Your task to perform on an android device: open sync settings in chrome Image 0: 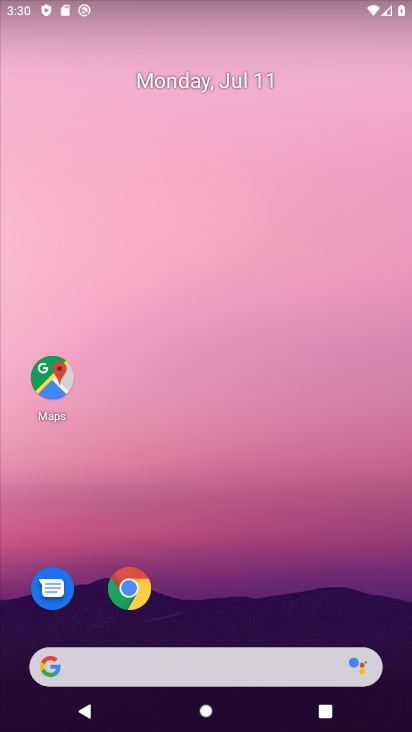
Step 0: drag from (341, 605) to (346, 75)
Your task to perform on an android device: open sync settings in chrome Image 1: 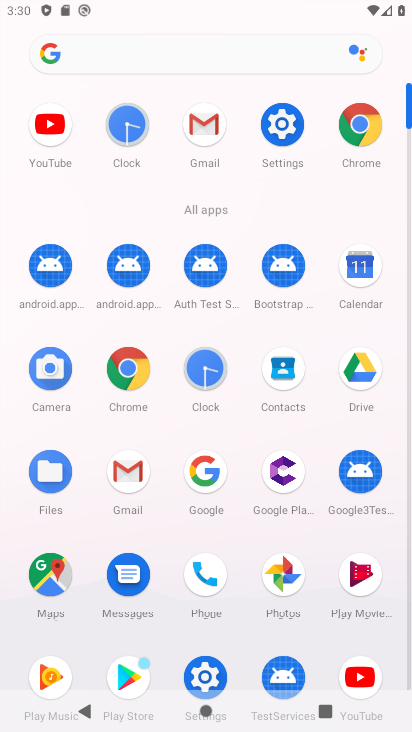
Step 1: click (140, 370)
Your task to perform on an android device: open sync settings in chrome Image 2: 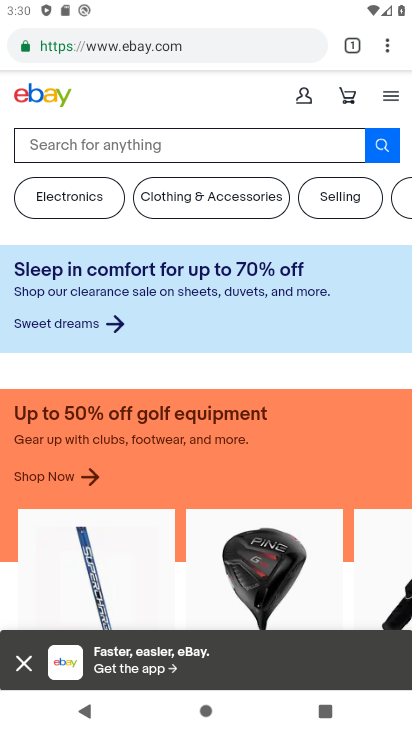
Step 2: click (383, 42)
Your task to perform on an android device: open sync settings in chrome Image 3: 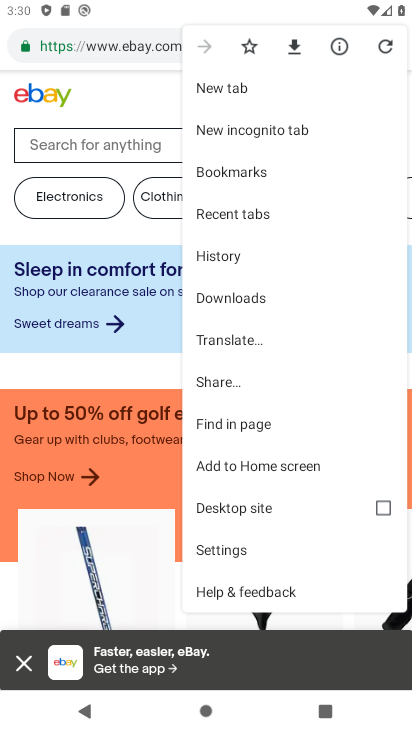
Step 3: click (252, 548)
Your task to perform on an android device: open sync settings in chrome Image 4: 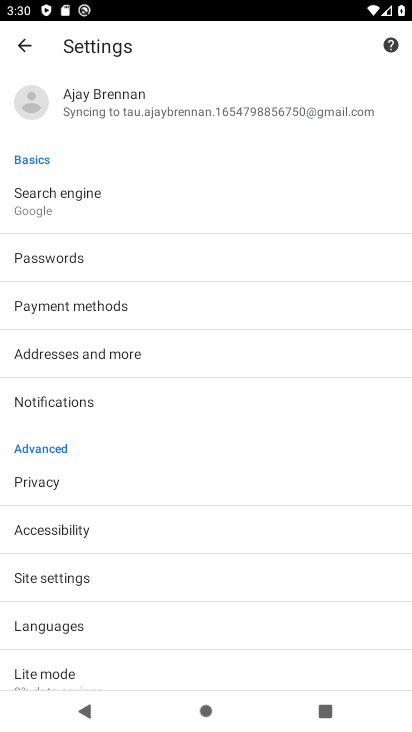
Step 4: drag from (286, 479) to (303, 392)
Your task to perform on an android device: open sync settings in chrome Image 5: 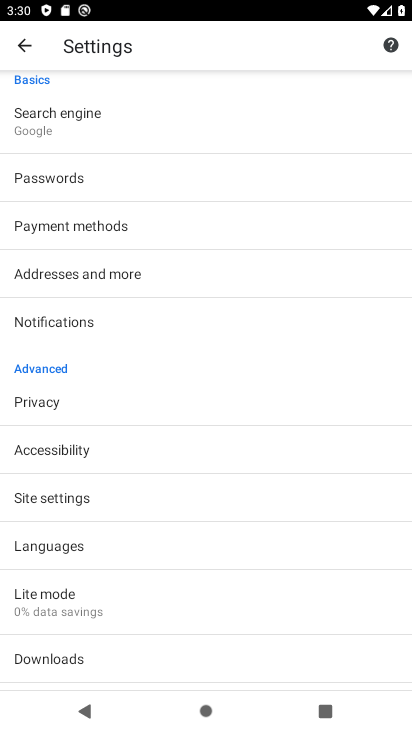
Step 5: drag from (291, 493) to (301, 397)
Your task to perform on an android device: open sync settings in chrome Image 6: 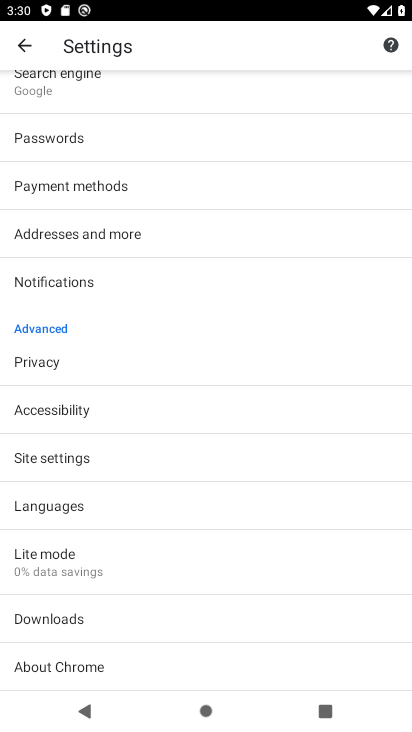
Step 6: click (284, 448)
Your task to perform on an android device: open sync settings in chrome Image 7: 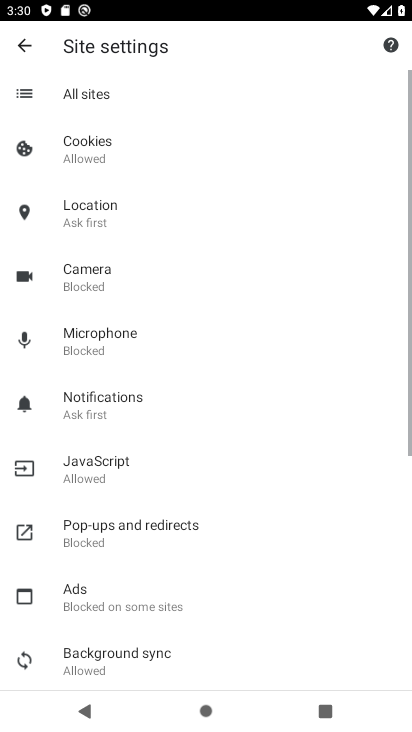
Step 7: drag from (284, 465) to (284, 423)
Your task to perform on an android device: open sync settings in chrome Image 8: 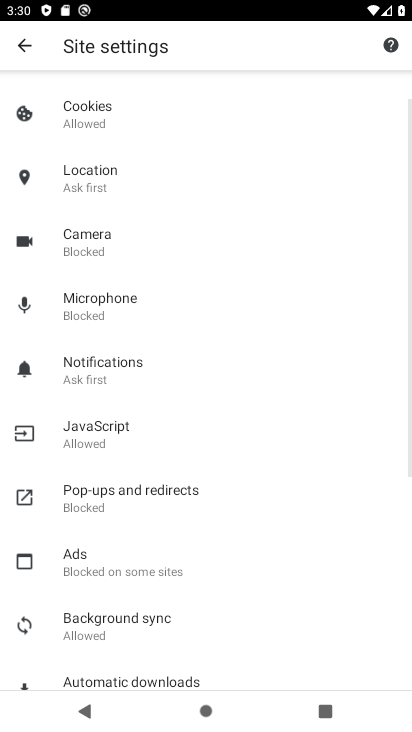
Step 8: drag from (285, 483) to (288, 414)
Your task to perform on an android device: open sync settings in chrome Image 9: 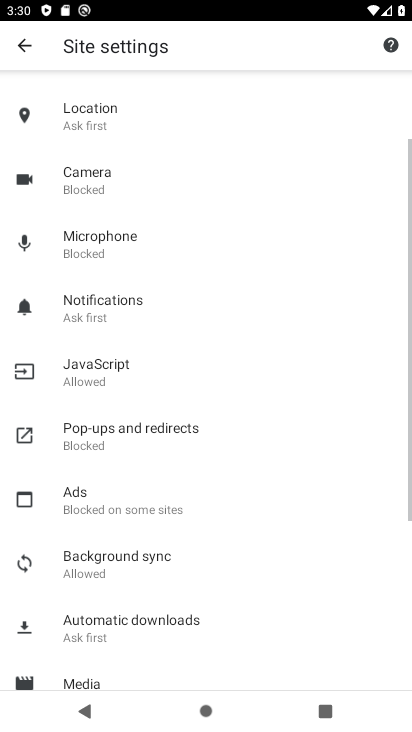
Step 9: drag from (299, 490) to (322, 330)
Your task to perform on an android device: open sync settings in chrome Image 10: 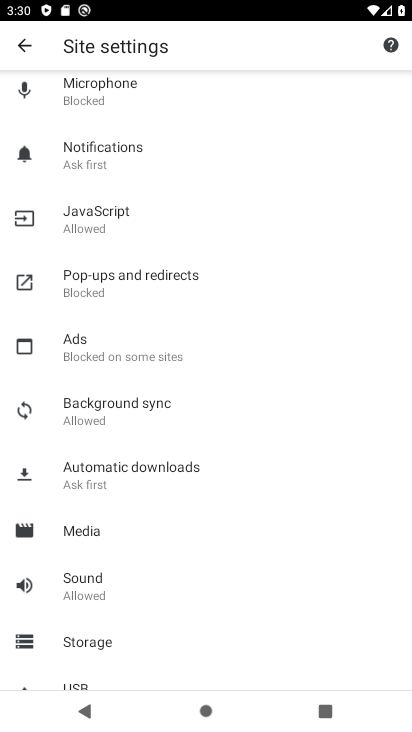
Step 10: drag from (333, 478) to (326, 350)
Your task to perform on an android device: open sync settings in chrome Image 11: 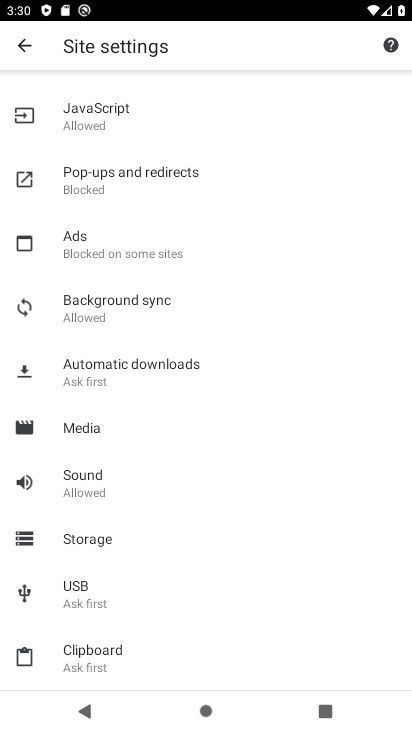
Step 11: drag from (312, 477) to (329, 348)
Your task to perform on an android device: open sync settings in chrome Image 12: 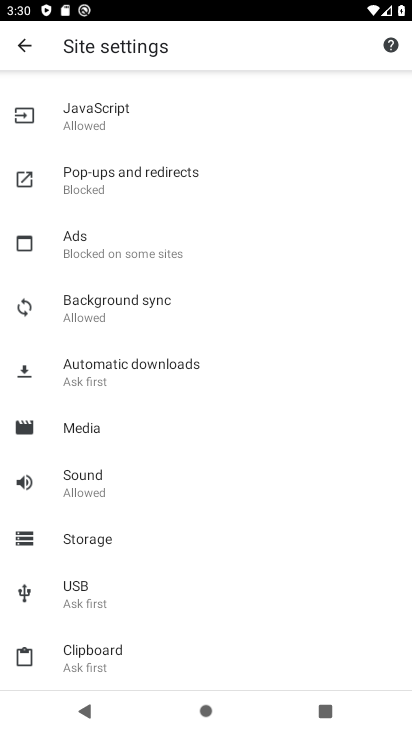
Step 12: click (192, 306)
Your task to perform on an android device: open sync settings in chrome Image 13: 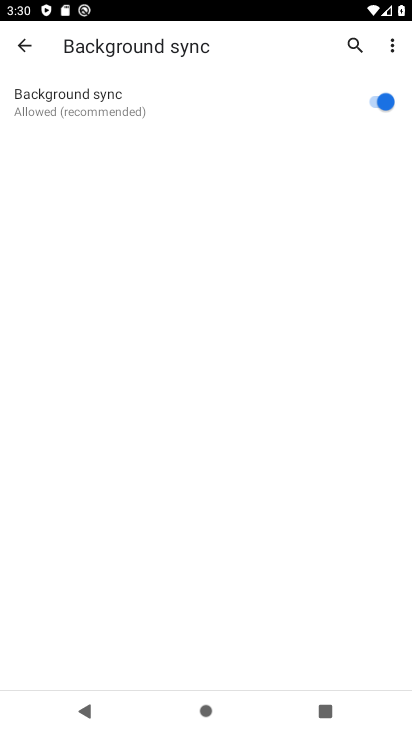
Step 13: task complete